Your task to perform on an android device: Search for seafood restaurants on Google Maps Image 0: 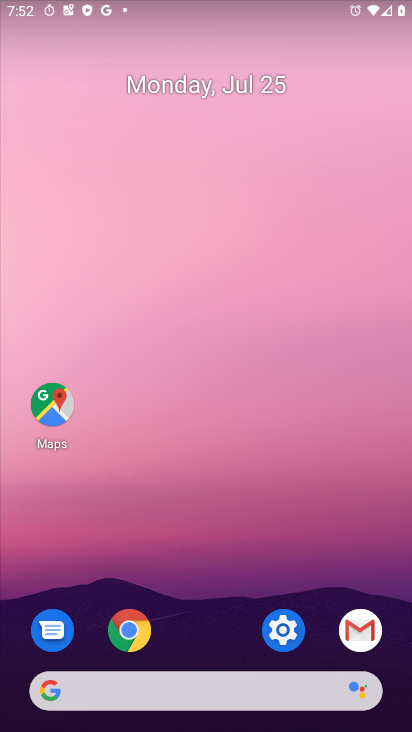
Step 0: click (41, 411)
Your task to perform on an android device: Search for seafood restaurants on Google Maps Image 1: 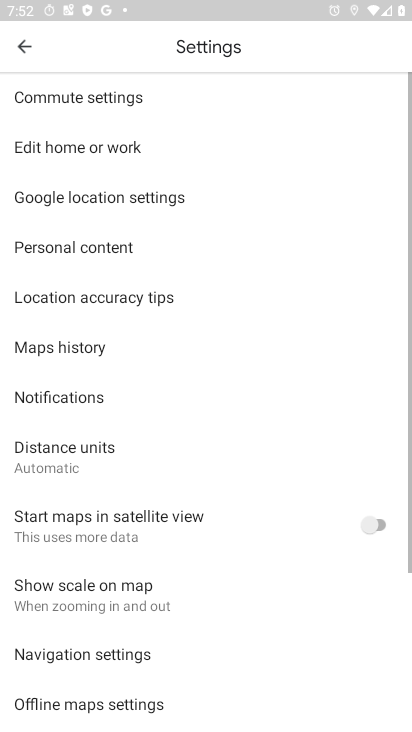
Step 1: click (34, 46)
Your task to perform on an android device: Search for seafood restaurants on Google Maps Image 2: 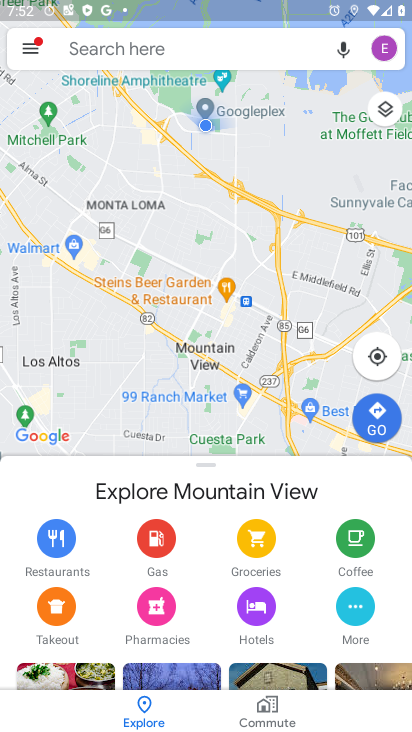
Step 2: click (111, 47)
Your task to perform on an android device: Search for seafood restaurants on Google Maps Image 3: 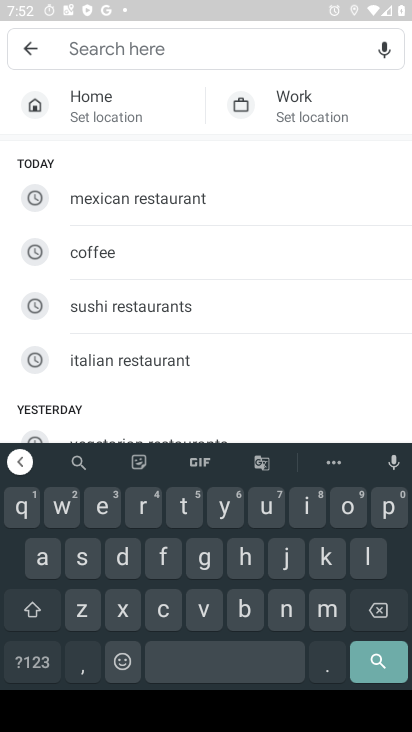
Step 3: click (76, 558)
Your task to perform on an android device: Search for seafood restaurants on Google Maps Image 4: 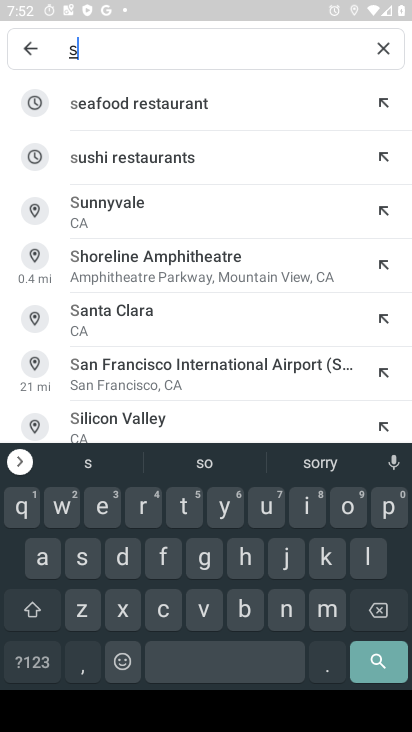
Step 4: click (149, 96)
Your task to perform on an android device: Search for seafood restaurants on Google Maps Image 5: 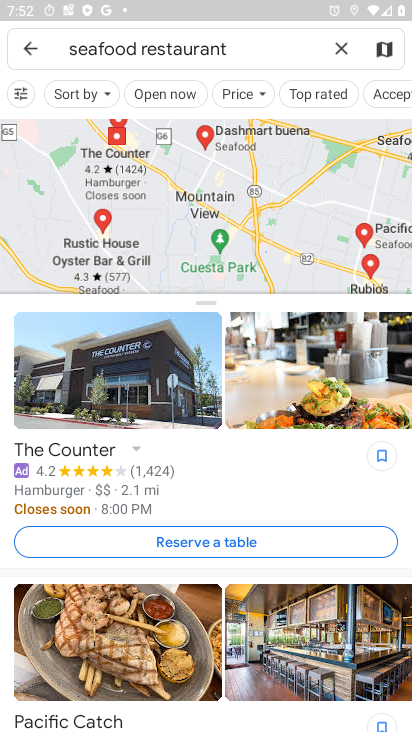
Step 5: task complete